Your task to perform on an android device: toggle notification dots Image 0: 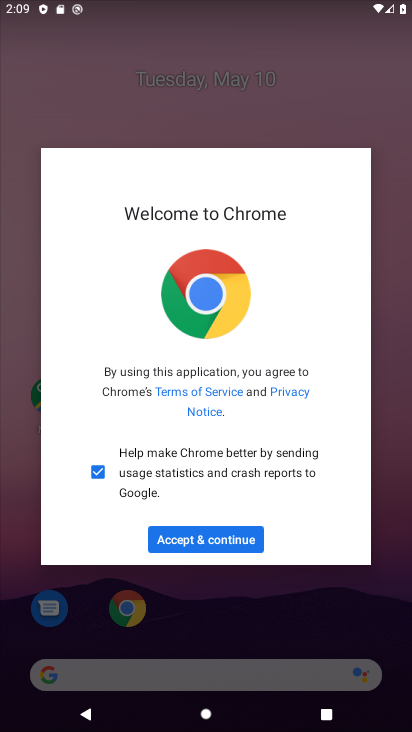
Step 0: press home button
Your task to perform on an android device: toggle notification dots Image 1: 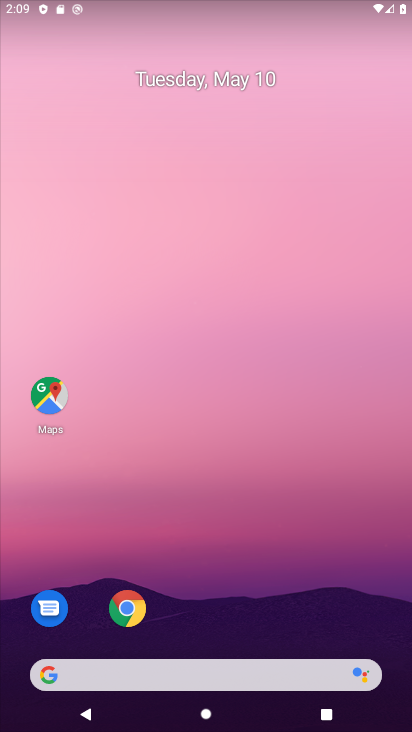
Step 1: drag from (384, 638) to (341, 77)
Your task to perform on an android device: toggle notification dots Image 2: 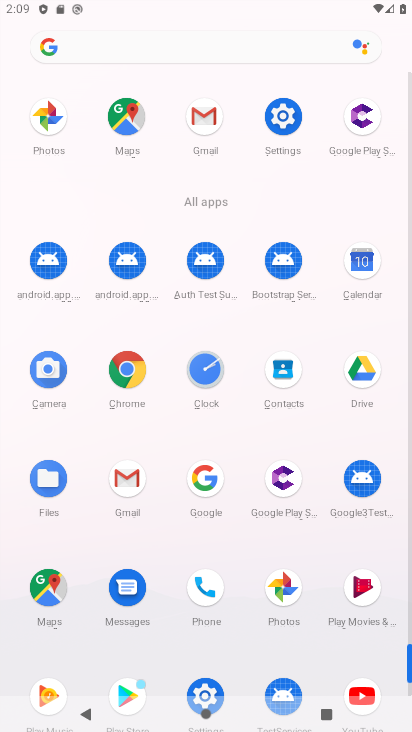
Step 2: click (409, 631)
Your task to perform on an android device: toggle notification dots Image 3: 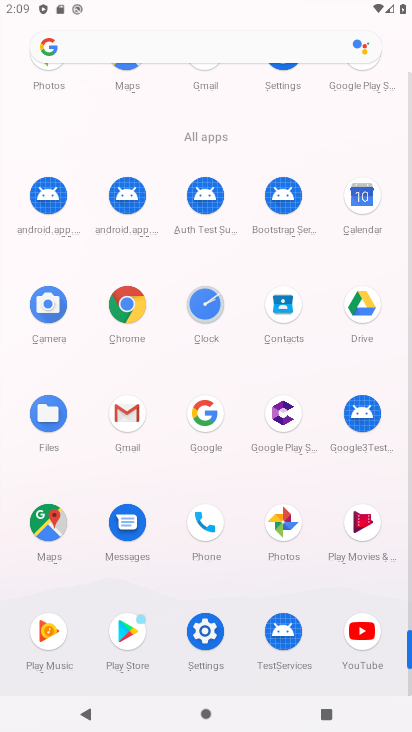
Step 3: click (205, 631)
Your task to perform on an android device: toggle notification dots Image 4: 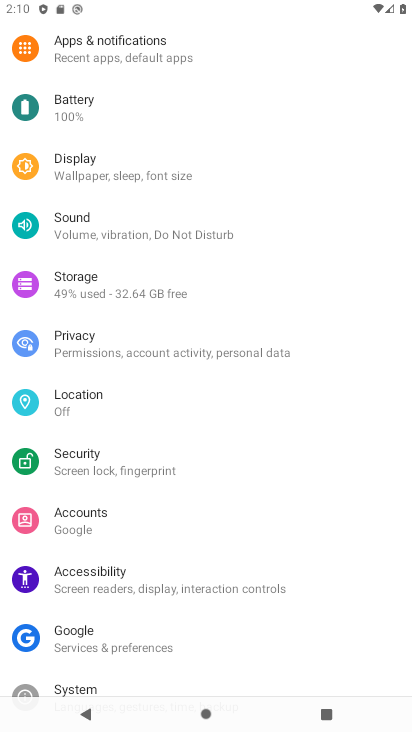
Step 4: drag from (337, 178) to (290, 419)
Your task to perform on an android device: toggle notification dots Image 5: 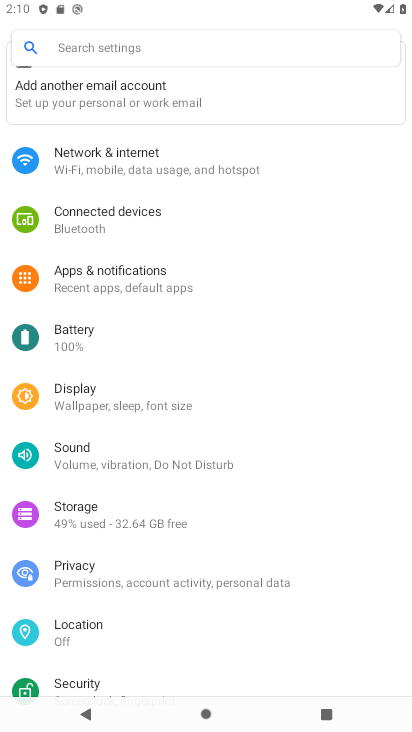
Step 5: click (86, 274)
Your task to perform on an android device: toggle notification dots Image 6: 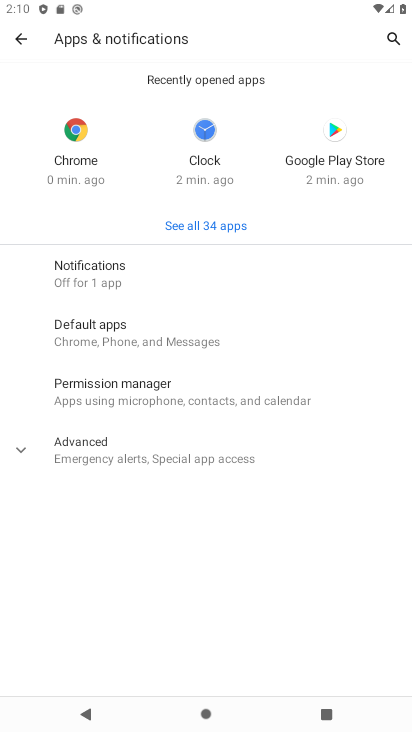
Step 6: click (88, 273)
Your task to perform on an android device: toggle notification dots Image 7: 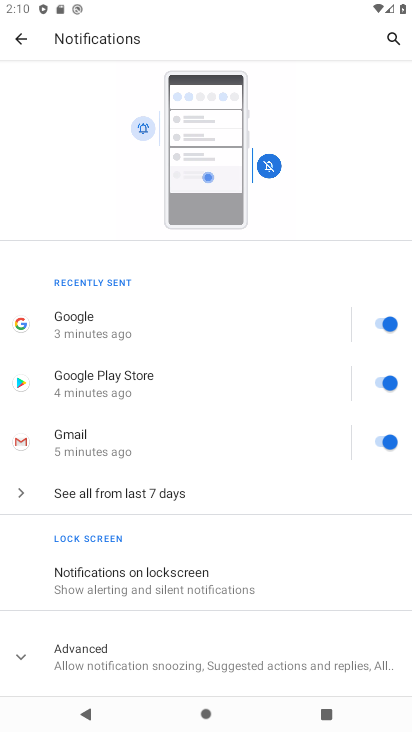
Step 7: drag from (294, 623) to (271, 271)
Your task to perform on an android device: toggle notification dots Image 8: 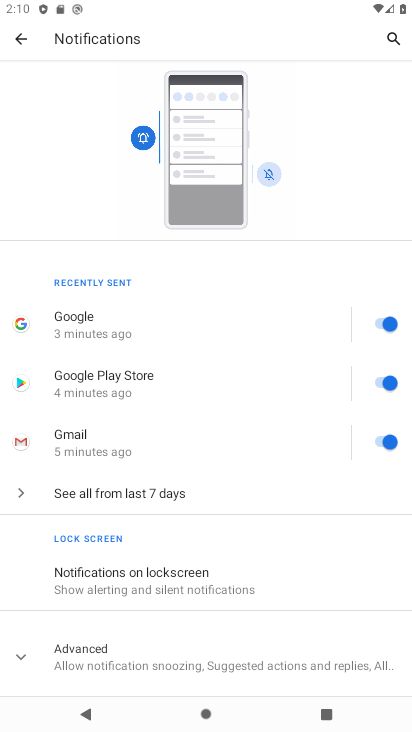
Step 8: click (17, 658)
Your task to perform on an android device: toggle notification dots Image 9: 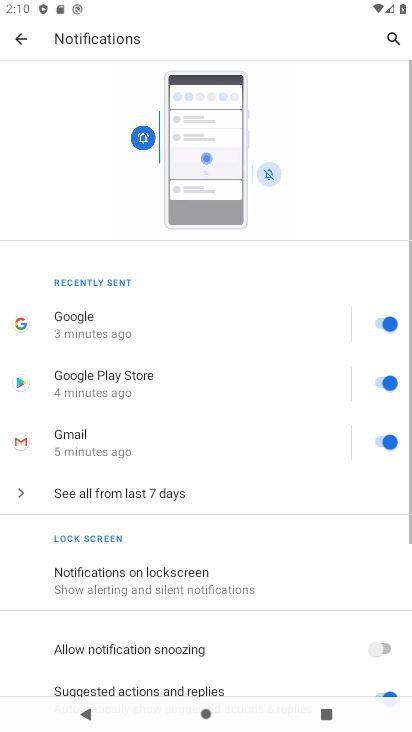
Step 9: drag from (342, 643) to (303, 222)
Your task to perform on an android device: toggle notification dots Image 10: 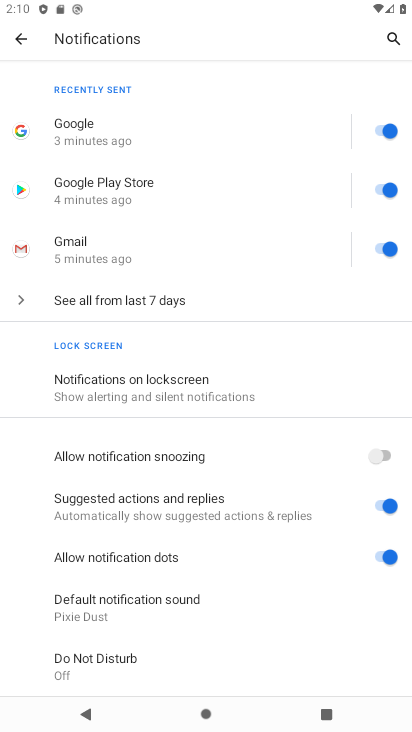
Step 10: click (372, 554)
Your task to perform on an android device: toggle notification dots Image 11: 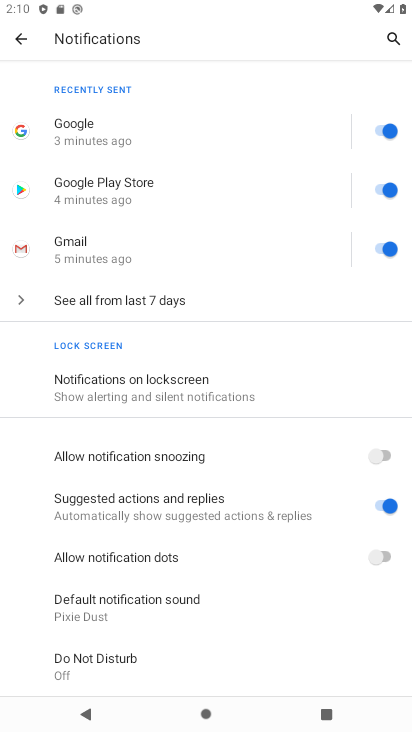
Step 11: task complete